Your task to perform on an android device: Open eBay Image 0: 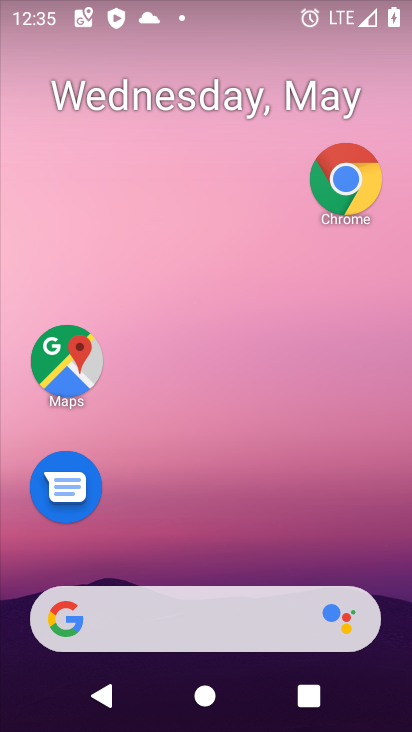
Step 0: click (202, 633)
Your task to perform on an android device: Open eBay Image 1: 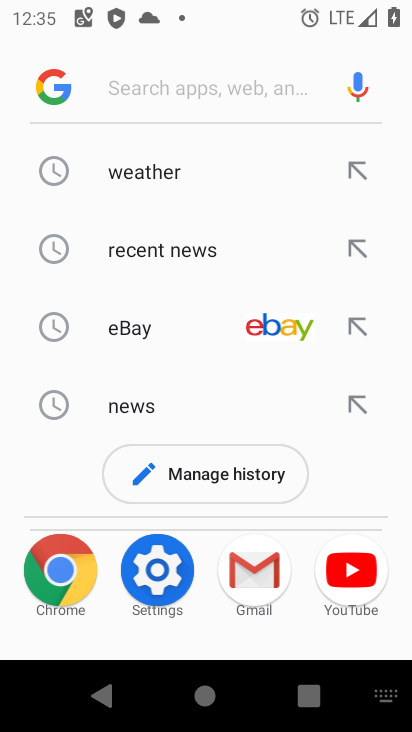
Step 1: click (197, 324)
Your task to perform on an android device: Open eBay Image 2: 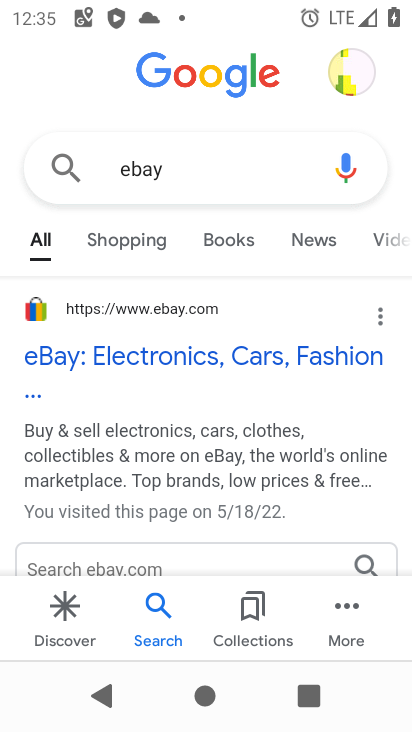
Step 2: click (115, 349)
Your task to perform on an android device: Open eBay Image 3: 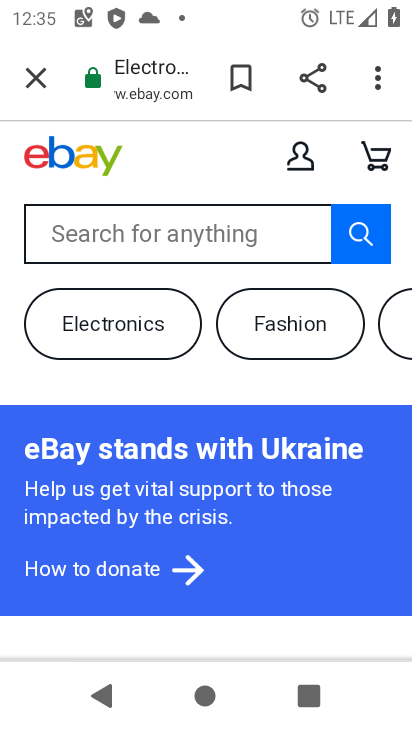
Step 3: task complete